Your task to perform on an android device: create a new album in the google photos Image 0: 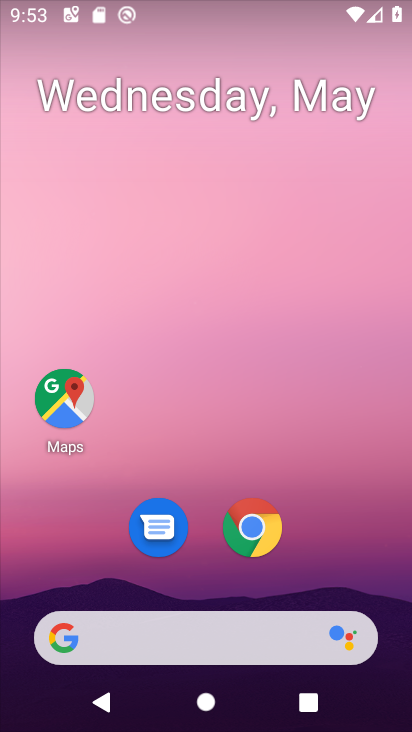
Step 0: drag from (316, 545) to (334, 83)
Your task to perform on an android device: create a new album in the google photos Image 1: 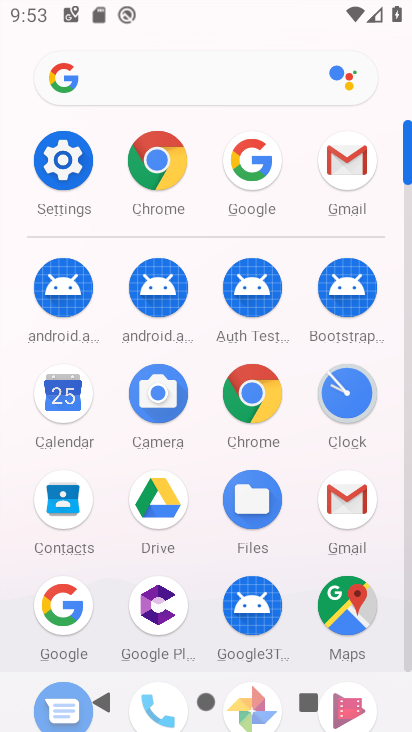
Step 1: drag from (203, 525) to (169, 298)
Your task to perform on an android device: create a new album in the google photos Image 2: 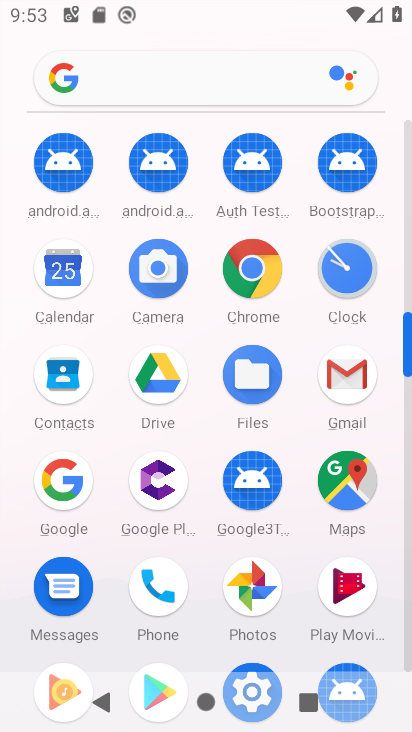
Step 2: click (254, 590)
Your task to perform on an android device: create a new album in the google photos Image 3: 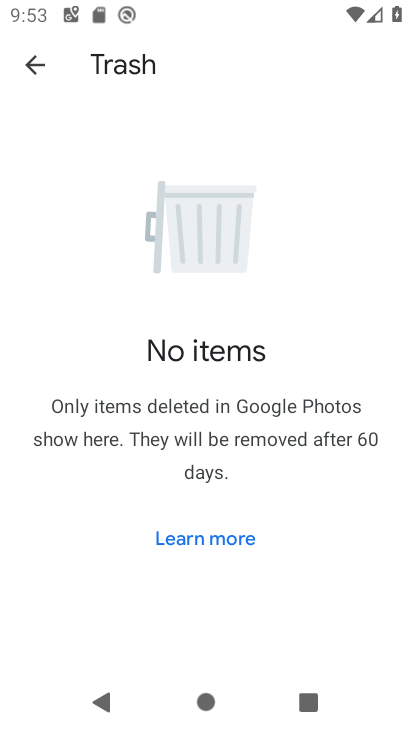
Step 3: press back button
Your task to perform on an android device: create a new album in the google photos Image 4: 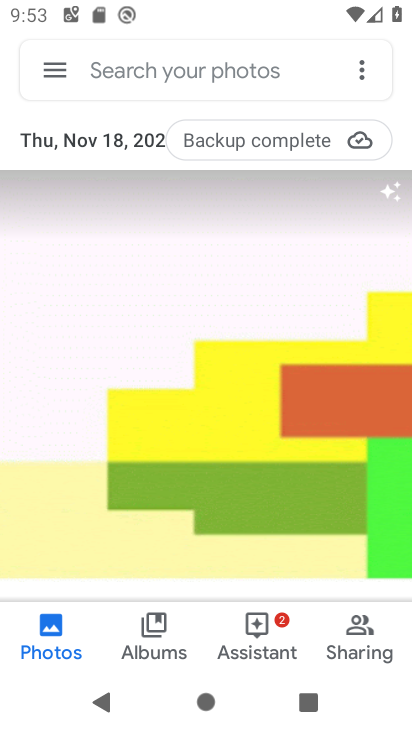
Step 4: click (160, 650)
Your task to perform on an android device: create a new album in the google photos Image 5: 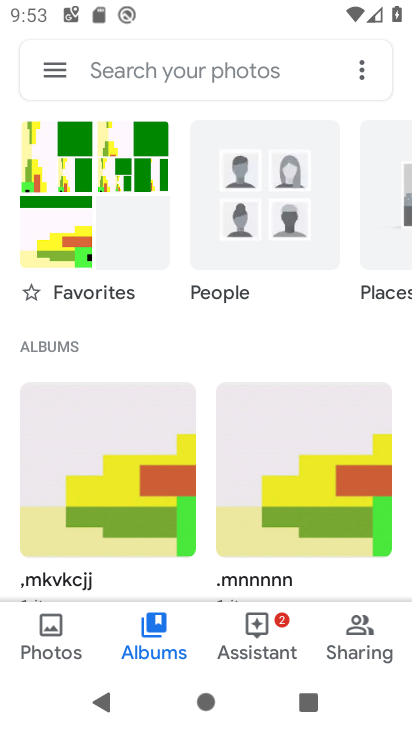
Step 5: drag from (216, 584) to (253, 217)
Your task to perform on an android device: create a new album in the google photos Image 6: 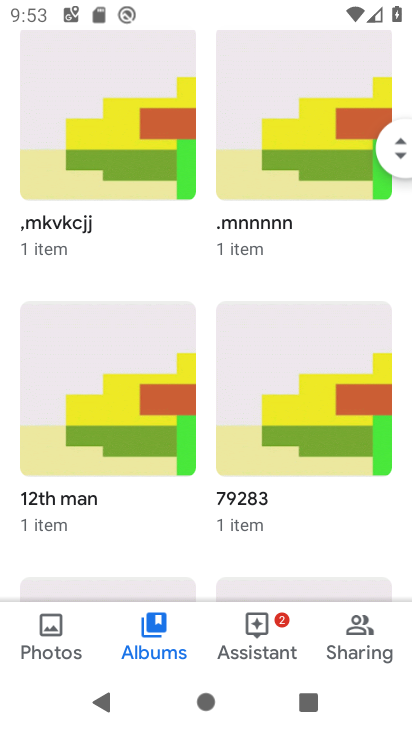
Step 6: drag from (205, 228) to (290, 504)
Your task to perform on an android device: create a new album in the google photos Image 7: 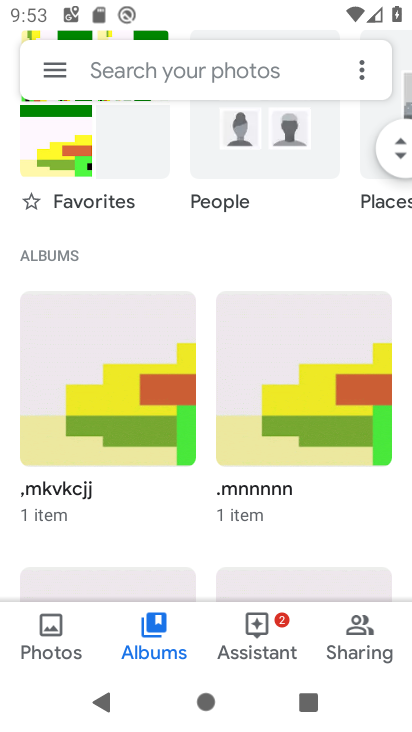
Step 7: click (40, 264)
Your task to perform on an android device: create a new album in the google photos Image 8: 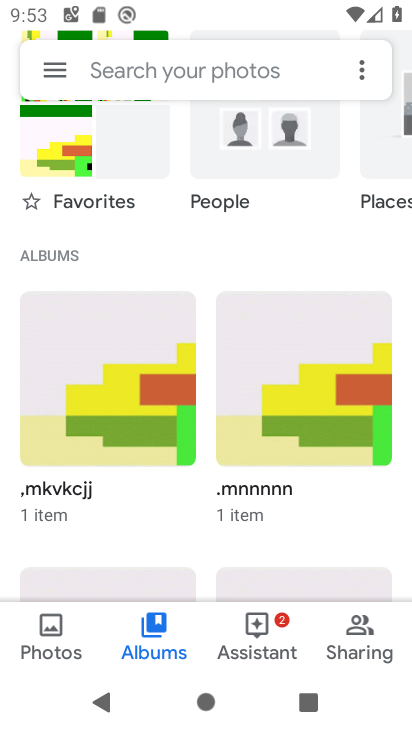
Step 8: task complete